Your task to perform on an android device: What's on my calendar tomorrow? Image 0: 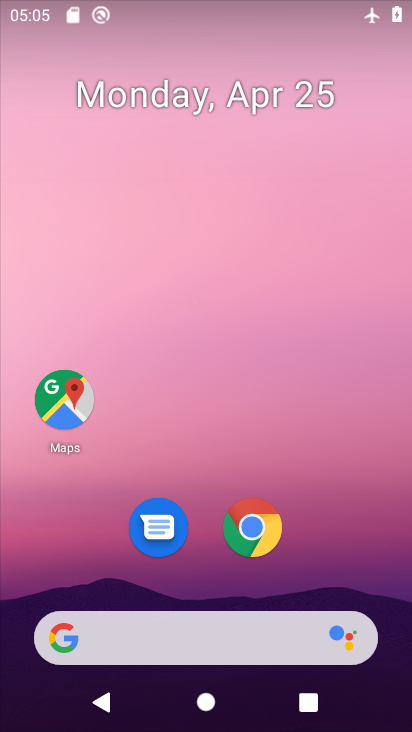
Step 0: drag from (385, 616) to (378, 23)
Your task to perform on an android device: What's on my calendar tomorrow? Image 1: 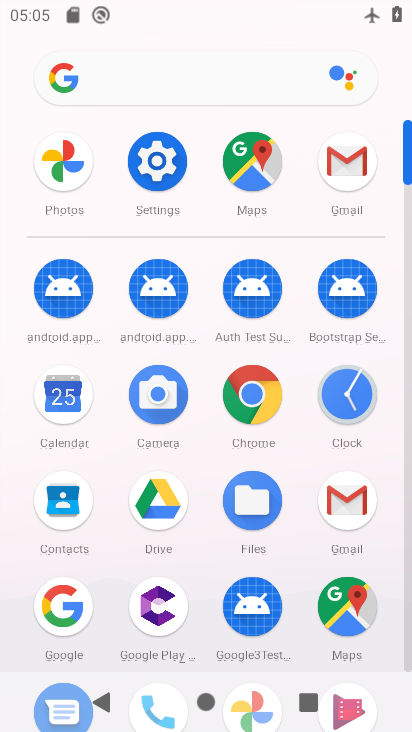
Step 1: click (58, 393)
Your task to perform on an android device: What's on my calendar tomorrow? Image 2: 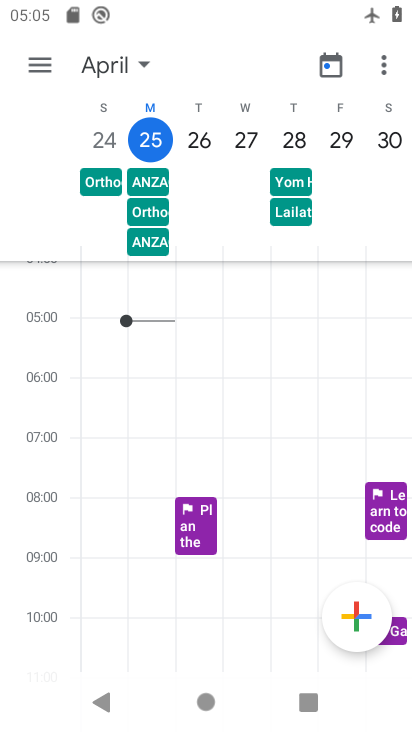
Step 2: click (132, 63)
Your task to perform on an android device: What's on my calendar tomorrow? Image 3: 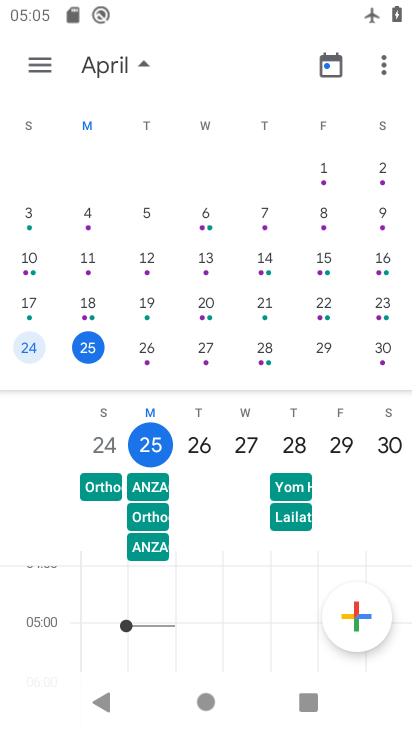
Step 3: click (152, 352)
Your task to perform on an android device: What's on my calendar tomorrow? Image 4: 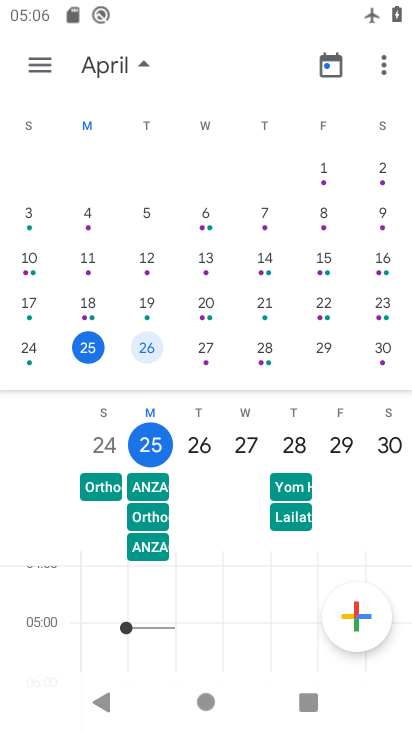
Step 4: click (147, 347)
Your task to perform on an android device: What's on my calendar tomorrow? Image 5: 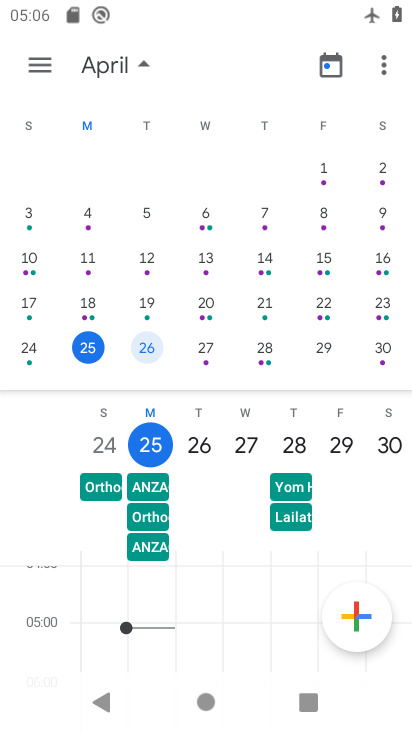
Step 5: drag from (234, 549) to (232, 223)
Your task to perform on an android device: What's on my calendar tomorrow? Image 6: 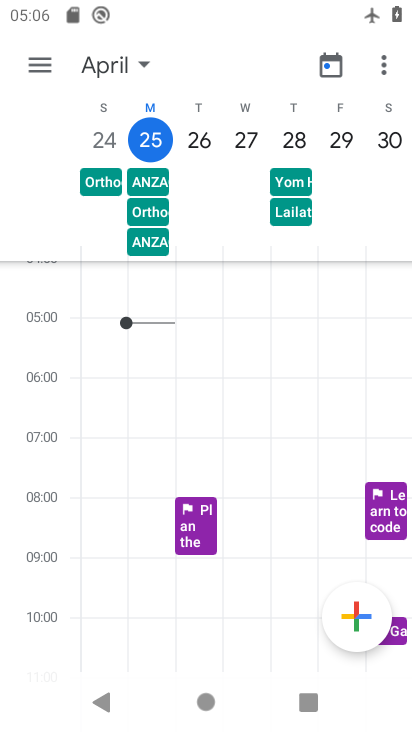
Step 6: drag from (237, 573) to (241, 266)
Your task to perform on an android device: What's on my calendar tomorrow? Image 7: 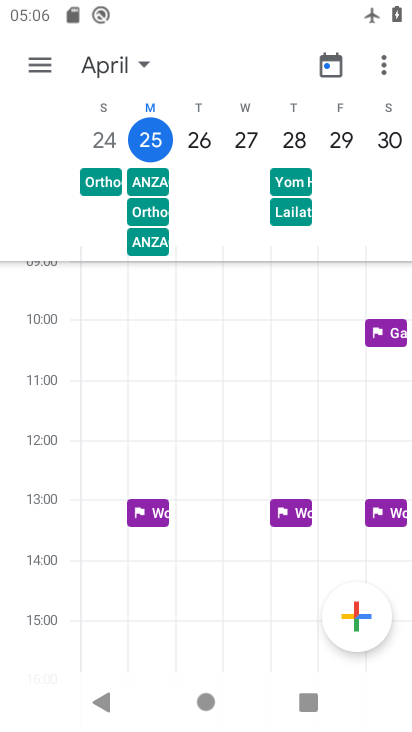
Step 7: drag from (227, 543) to (224, 200)
Your task to perform on an android device: What's on my calendar tomorrow? Image 8: 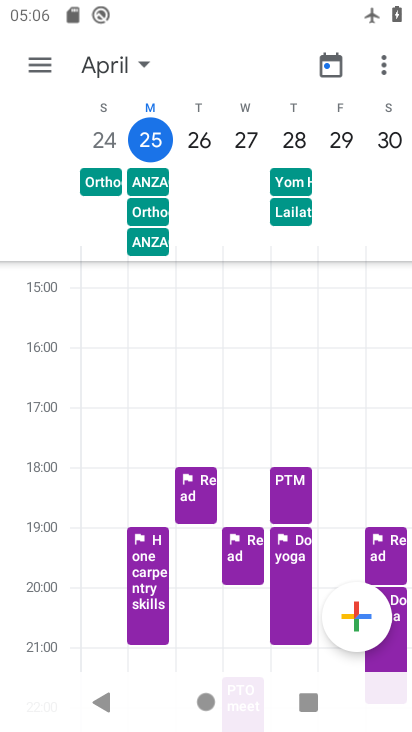
Step 8: drag from (202, 608) to (224, 283)
Your task to perform on an android device: What's on my calendar tomorrow? Image 9: 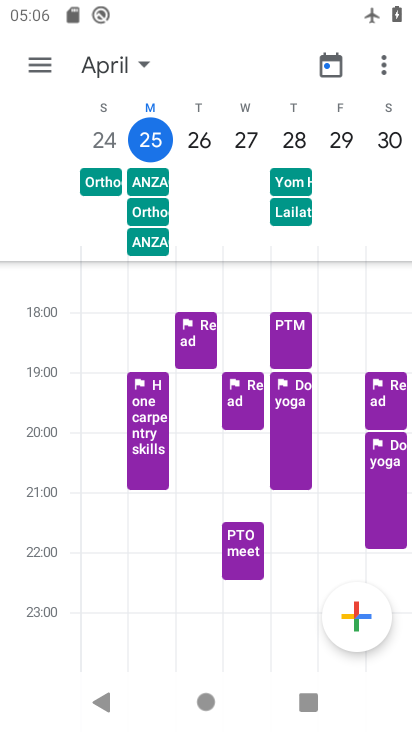
Step 9: click (34, 65)
Your task to perform on an android device: What's on my calendar tomorrow? Image 10: 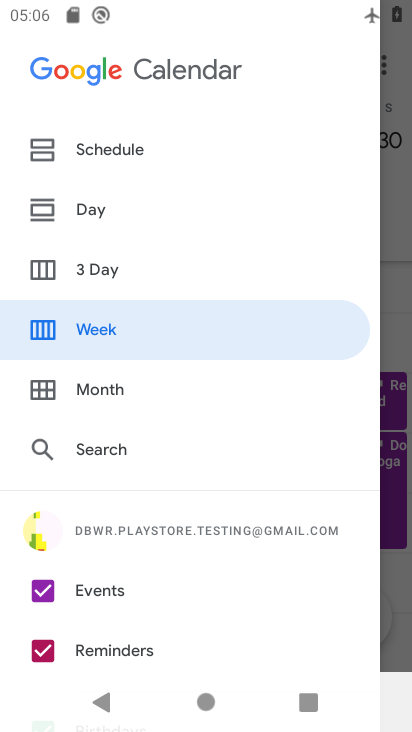
Step 10: click (92, 206)
Your task to perform on an android device: What's on my calendar tomorrow? Image 11: 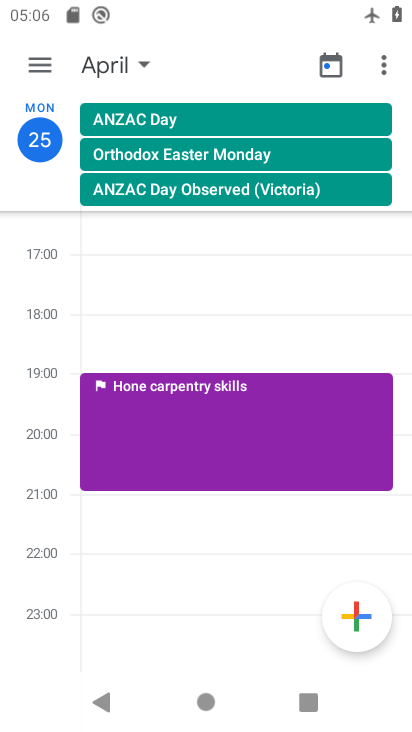
Step 11: click (138, 69)
Your task to perform on an android device: What's on my calendar tomorrow? Image 12: 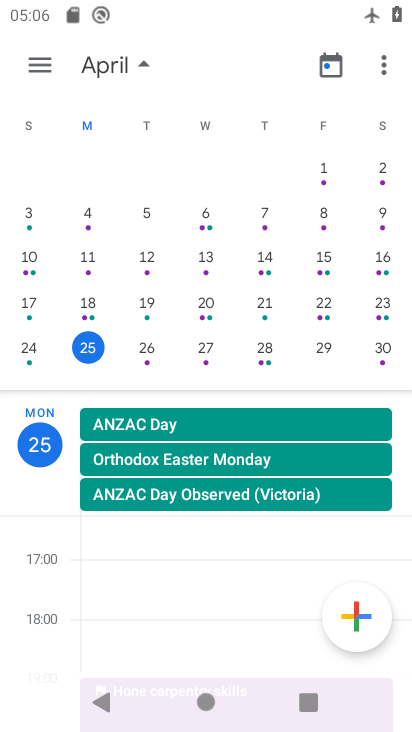
Step 12: click (150, 346)
Your task to perform on an android device: What's on my calendar tomorrow? Image 13: 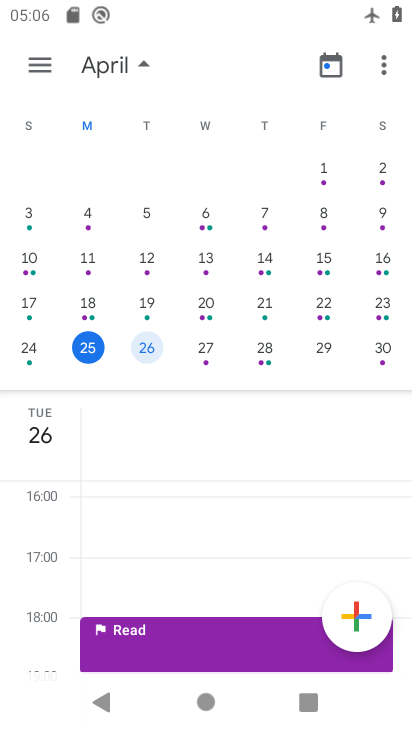
Step 13: task complete